Your task to perform on an android device: Open display settings Image 0: 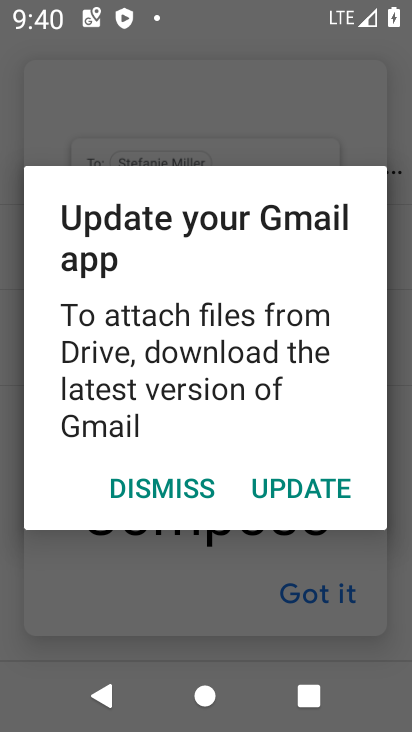
Step 0: press home button
Your task to perform on an android device: Open display settings Image 1: 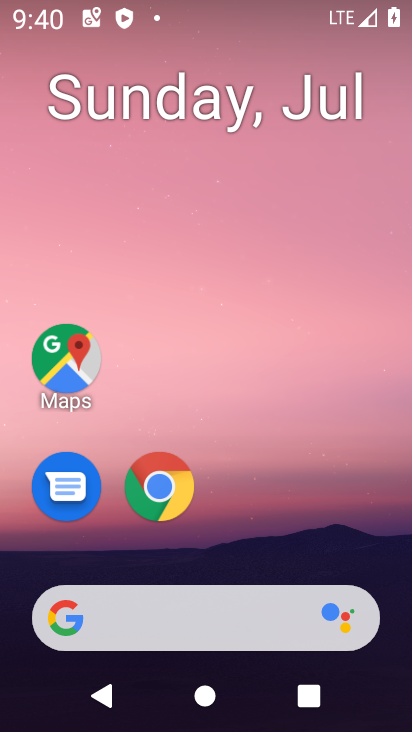
Step 1: drag from (354, 554) to (341, 63)
Your task to perform on an android device: Open display settings Image 2: 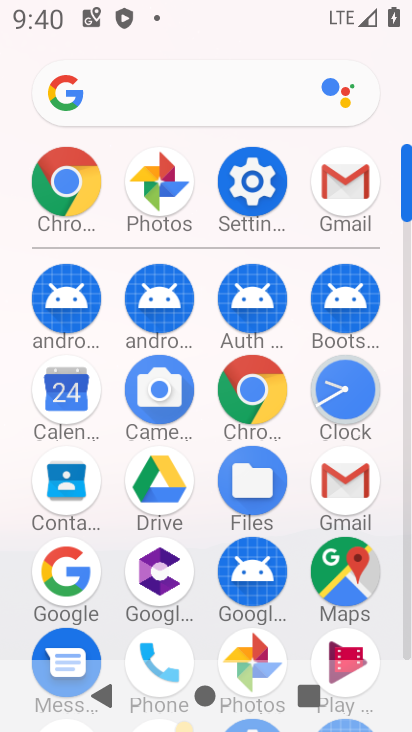
Step 2: click (255, 186)
Your task to perform on an android device: Open display settings Image 3: 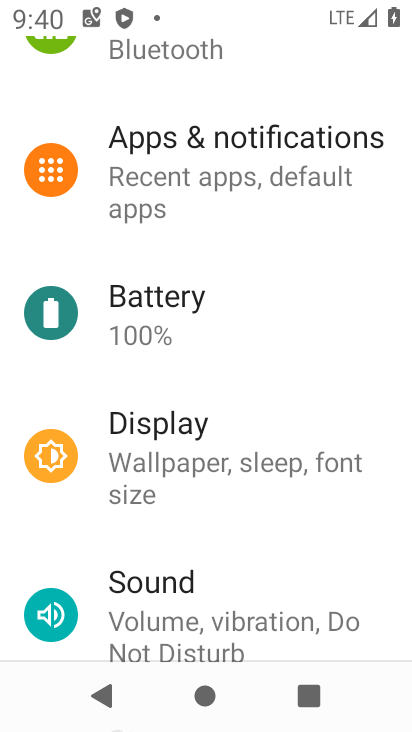
Step 3: drag from (336, 205) to (340, 368)
Your task to perform on an android device: Open display settings Image 4: 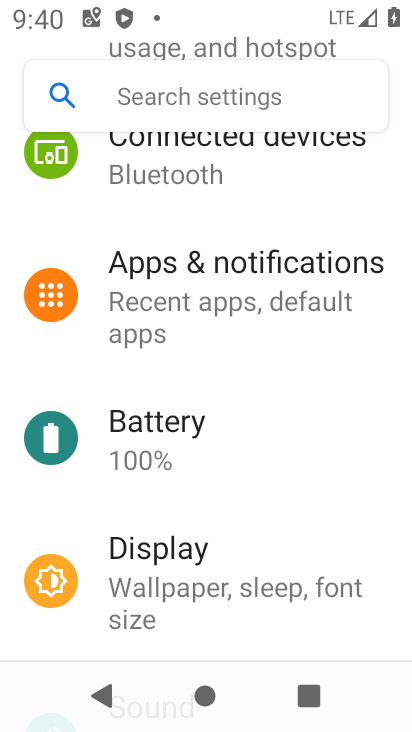
Step 4: drag from (360, 200) to (367, 349)
Your task to perform on an android device: Open display settings Image 5: 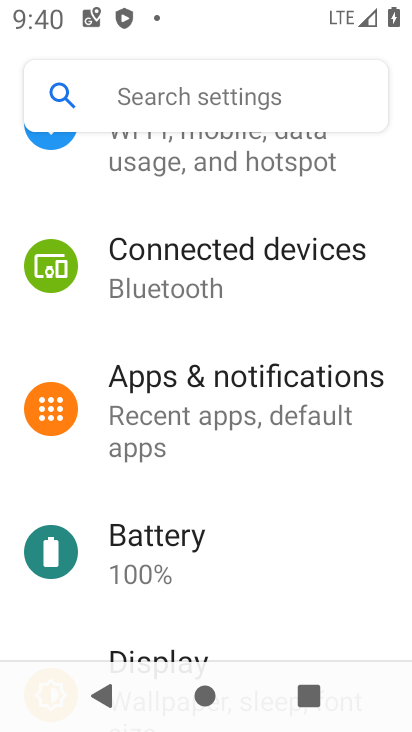
Step 5: drag from (362, 186) to (370, 349)
Your task to perform on an android device: Open display settings Image 6: 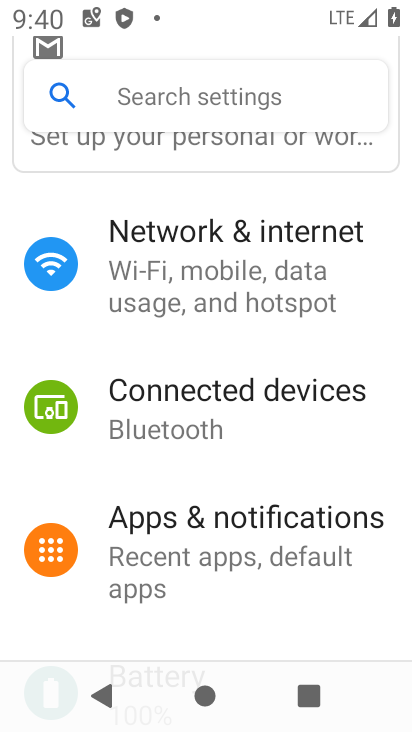
Step 6: drag from (380, 188) to (390, 476)
Your task to perform on an android device: Open display settings Image 7: 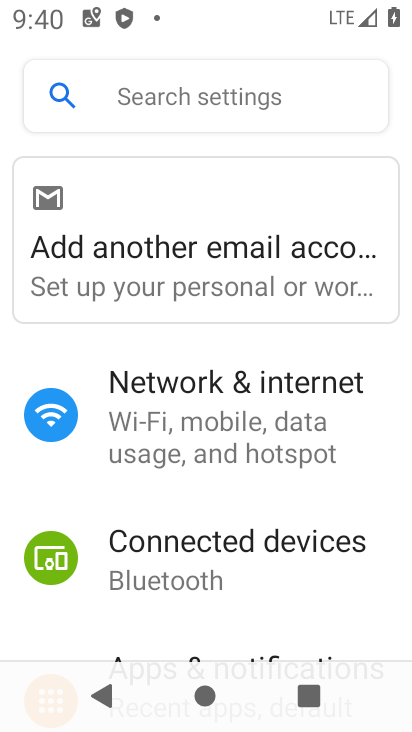
Step 7: drag from (387, 493) to (393, 387)
Your task to perform on an android device: Open display settings Image 8: 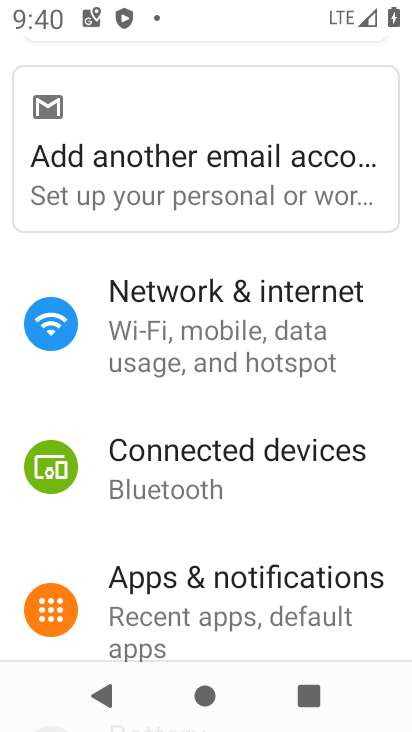
Step 8: drag from (378, 510) to (377, 381)
Your task to perform on an android device: Open display settings Image 9: 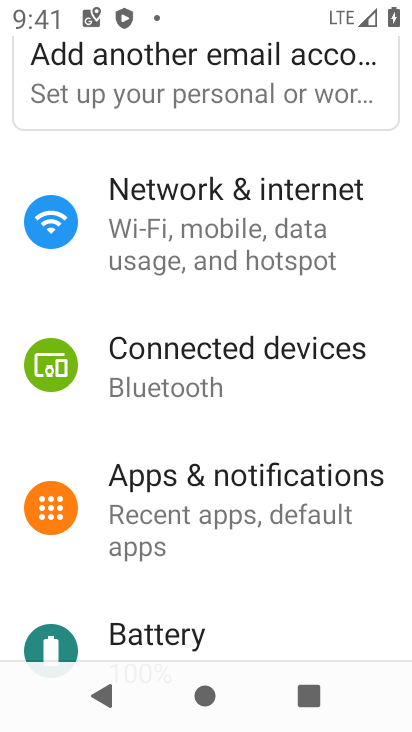
Step 9: drag from (369, 526) to (371, 381)
Your task to perform on an android device: Open display settings Image 10: 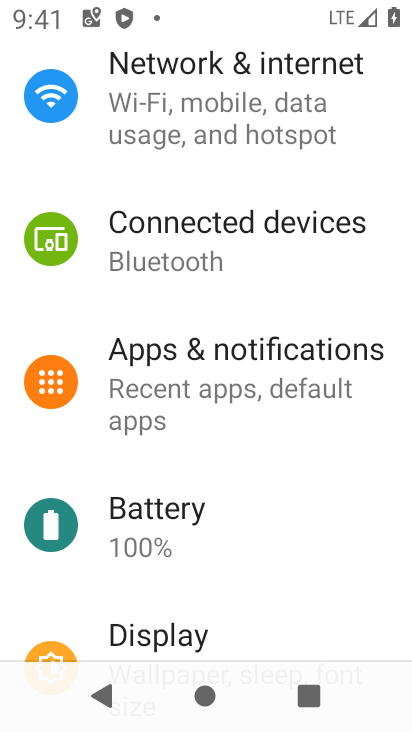
Step 10: drag from (370, 509) to (364, 375)
Your task to perform on an android device: Open display settings Image 11: 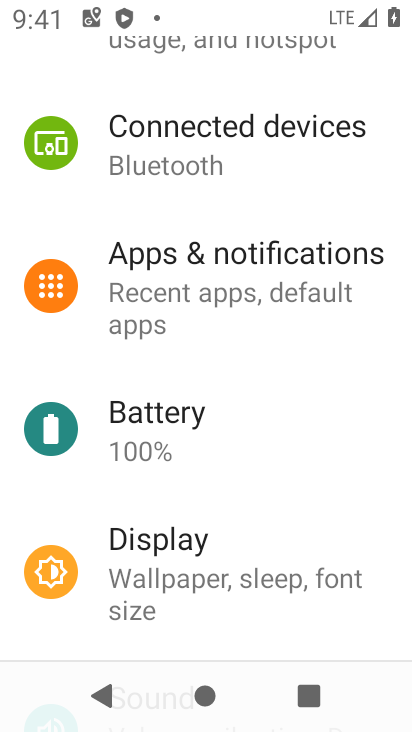
Step 11: drag from (345, 496) to (360, 353)
Your task to perform on an android device: Open display settings Image 12: 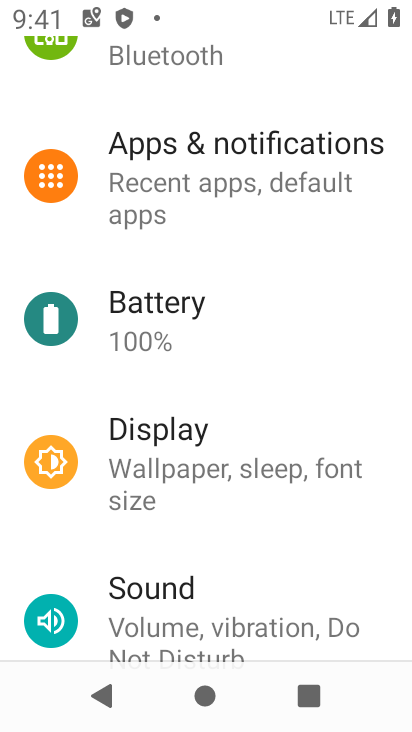
Step 12: drag from (358, 552) to (359, 399)
Your task to perform on an android device: Open display settings Image 13: 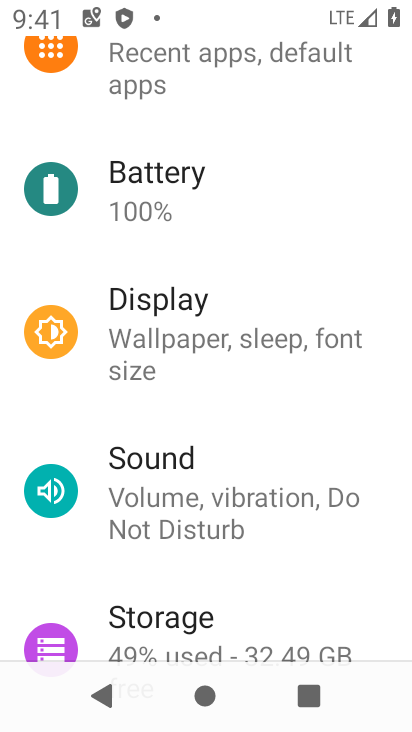
Step 13: click (252, 333)
Your task to perform on an android device: Open display settings Image 14: 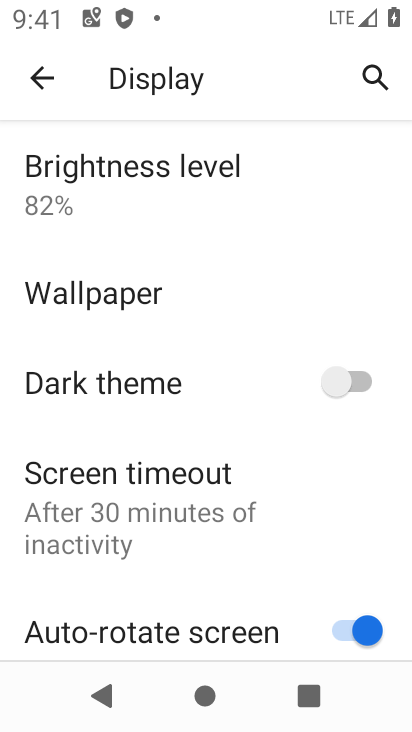
Step 14: task complete